Your task to perform on an android device: Go to settings Image 0: 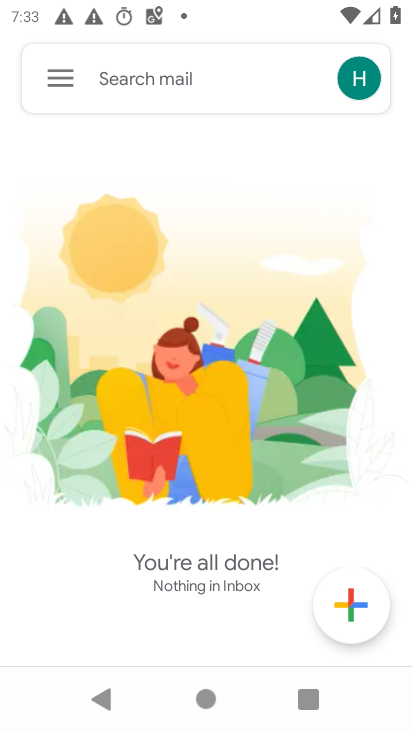
Step 0: press home button
Your task to perform on an android device: Go to settings Image 1: 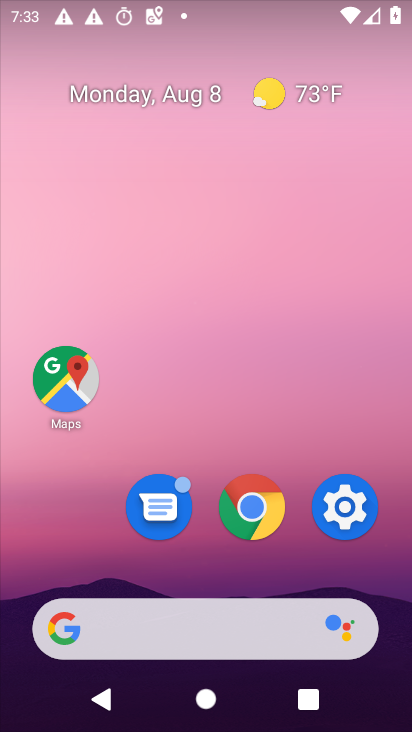
Step 1: click (342, 513)
Your task to perform on an android device: Go to settings Image 2: 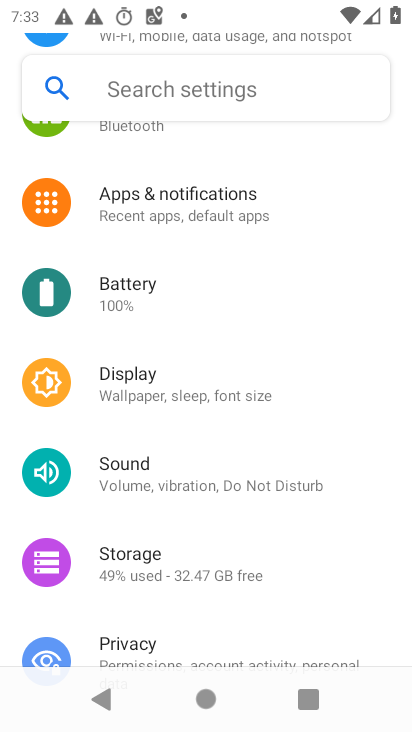
Step 2: task complete